Your task to perform on an android device: Open the Play Movies app and select the watchlist tab. Image 0: 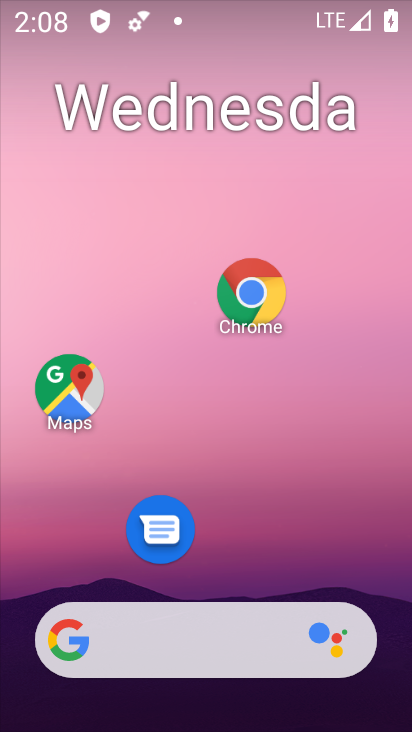
Step 0: drag from (222, 616) to (252, 270)
Your task to perform on an android device: Open the Play Movies app and select the watchlist tab. Image 1: 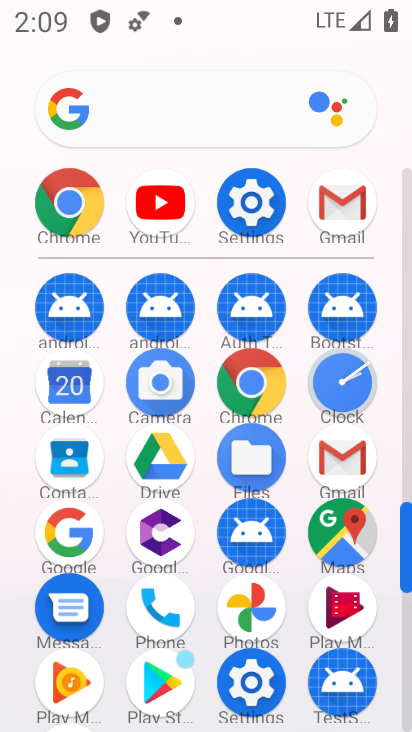
Step 1: click (334, 612)
Your task to perform on an android device: Open the Play Movies app and select the watchlist tab. Image 2: 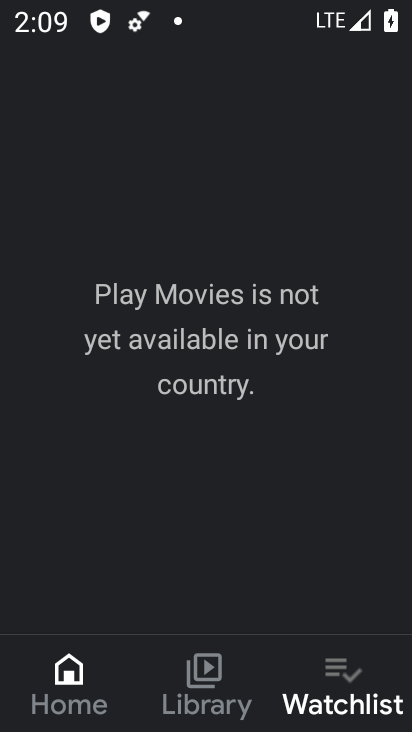
Step 2: click (361, 712)
Your task to perform on an android device: Open the Play Movies app and select the watchlist tab. Image 3: 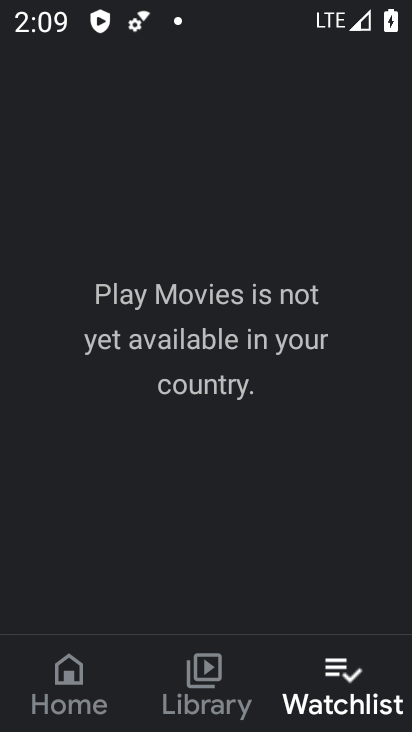
Step 3: task complete